Your task to perform on an android device: Is it going to rain this weekend? Image 0: 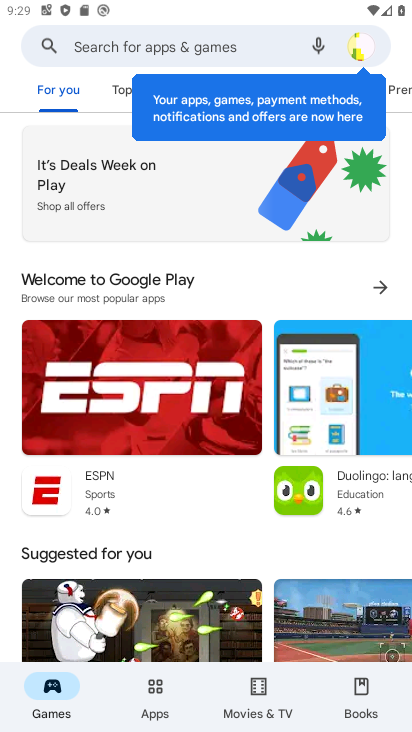
Step 0: press home button
Your task to perform on an android device: Is it going to rain this weekend? Image 1: 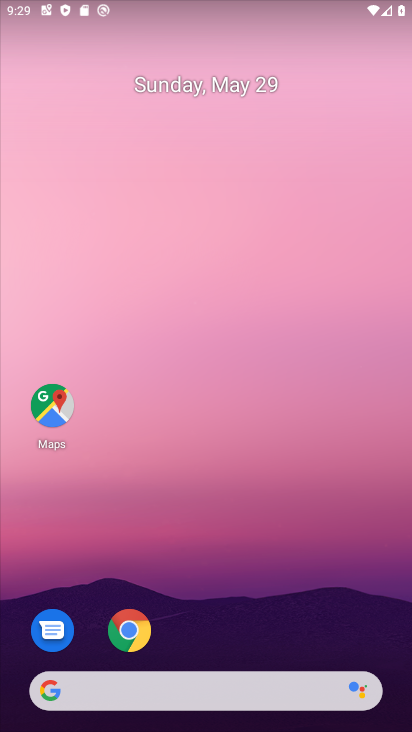
Step 1: drag from (0, 219) to (405, 435)
Your task to perform on an android device: Is it going to rain this weekend? Image 2: 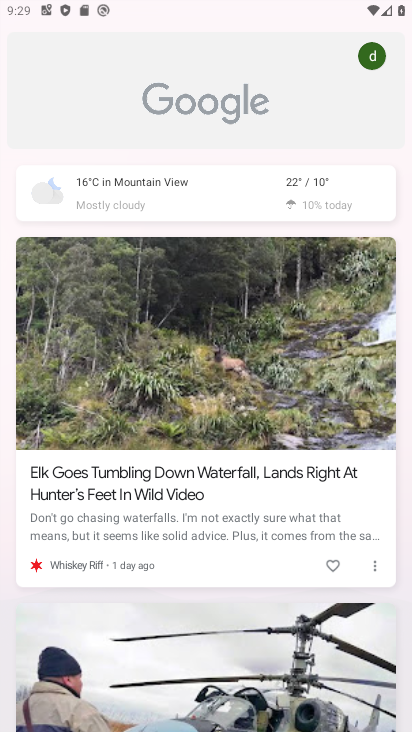
Step 2: click (323, 182)
Your task to perform on an android device: Is it going to rain this weekend? Image 3: 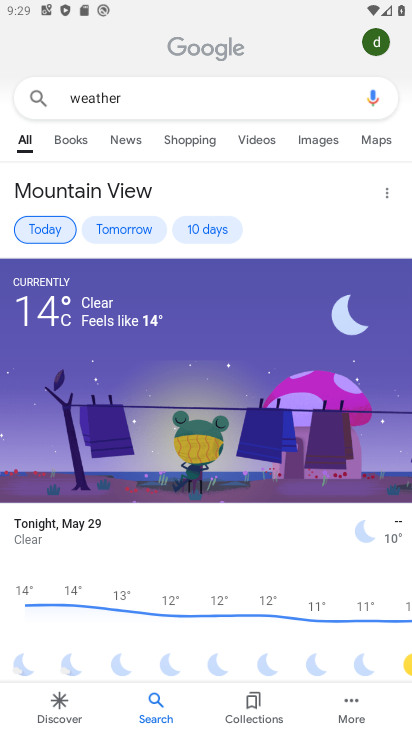
Step 3: click (189, 233)
Your task to perform on an android device: Is it going to rain this weekend? Image 4: 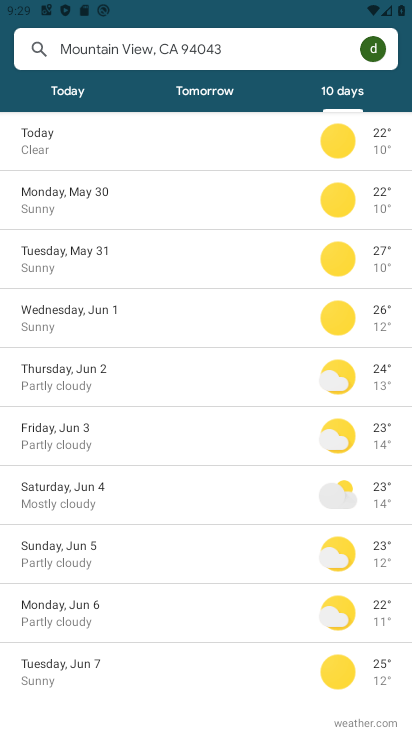
Step 4: task complete